Your task to perform on an android device: change the clock display to digital Image 0: 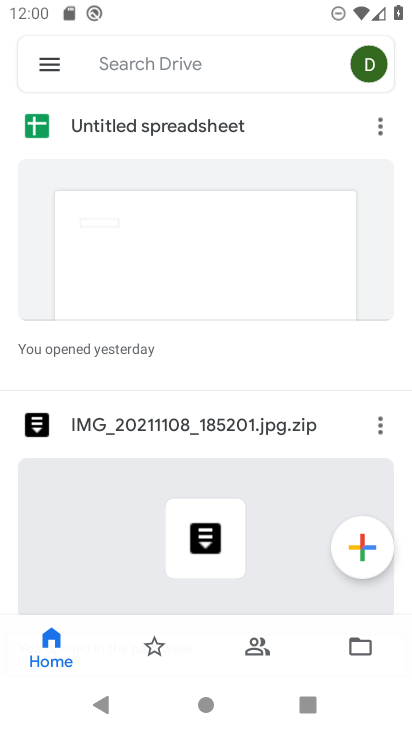
Step 0: press home button
Your task to perform on an android device: change the clock display to digital Image 1: 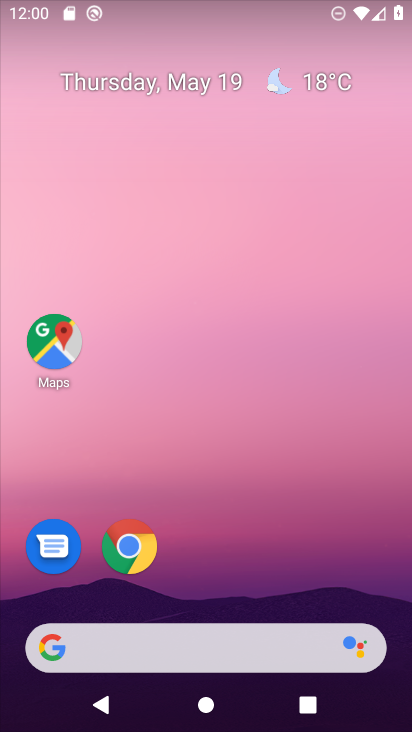
Step 1: drag from (230, 726) to (253, 201)
Your task to perform on an android device: change the clock display to digital Image 2: 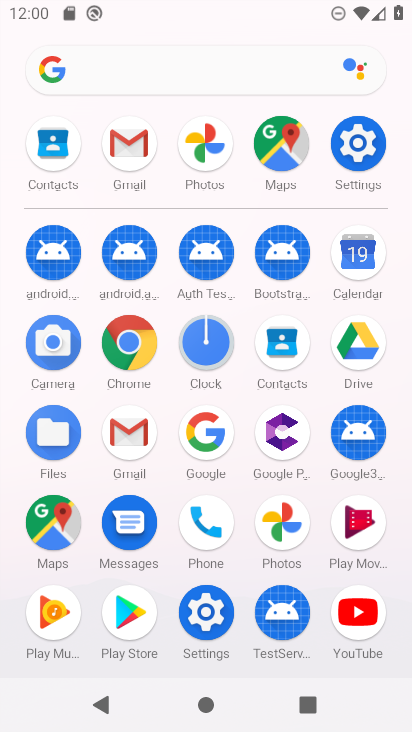
Step 2: click (206, 346)
Your task to perform on an android device: change the clock display to digital Image 3: 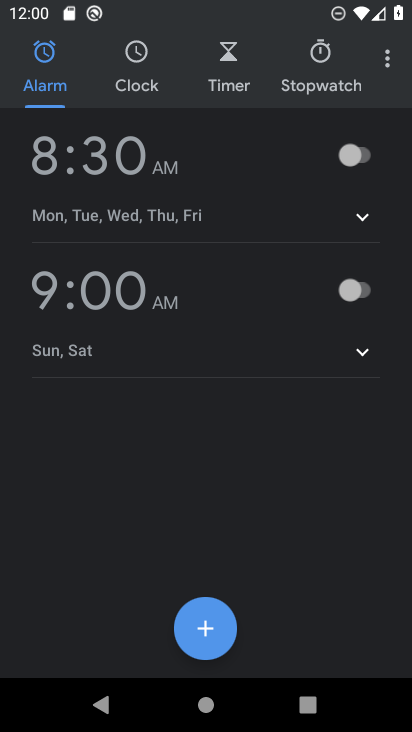
Step 3: click (389, 64)
Your task to perform on an android device: change the clock display to digital Image 4: 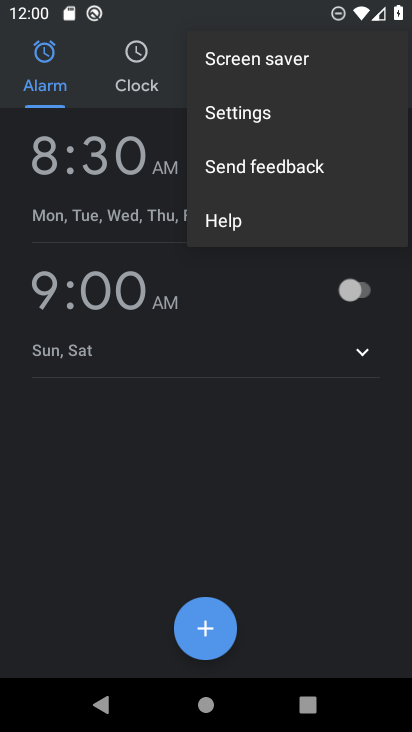
Step 4: click (237, 106)
Your task to perform on an android device: change the clock display to digital Image 5: 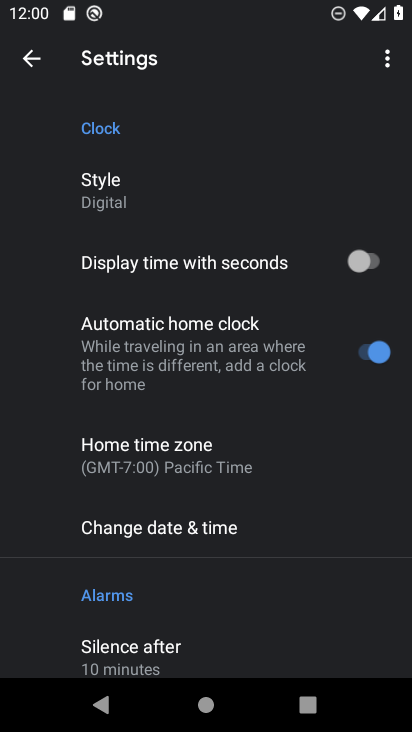
Step 5: task complete